Your task to perform on an android device: turn off location Image 0: 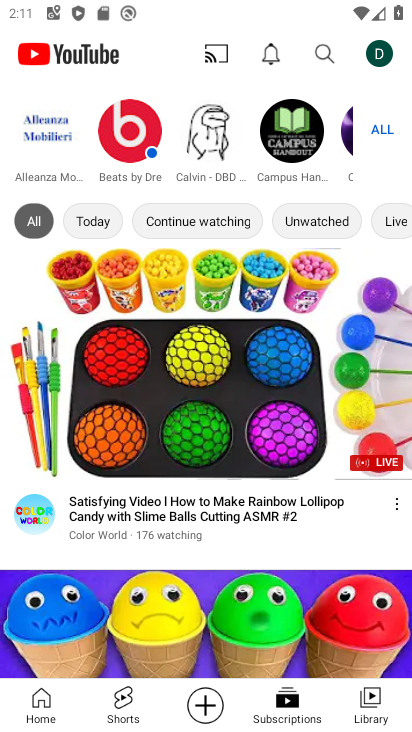
Step 0: press home button
Your task to perform on an android device: turn off location Image 1: 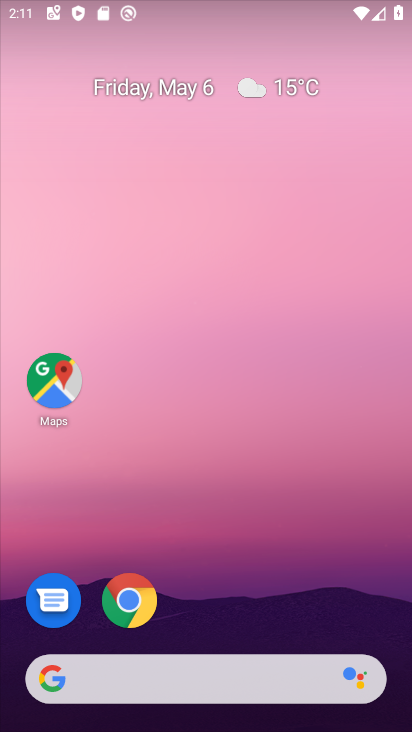
Step 1: drag from (350, 580) to (213, 22)
Your task to perform on an android device: turn off location Image 2: 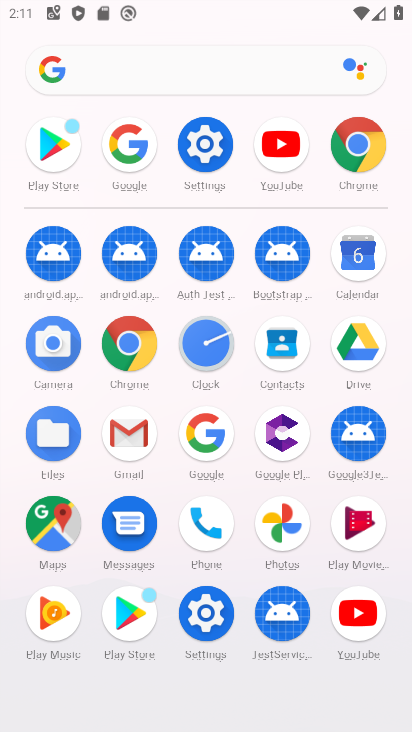
Step 2: click (196, 612)
Your task to perform on an android device: turn off location Image 3: 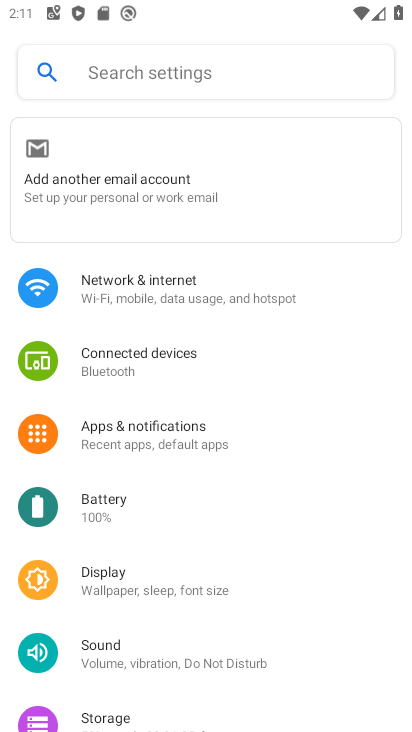
Step 3: drag from (161, 634) to (238, 222)
Your task to perform on an android device: turn off location Image 4: 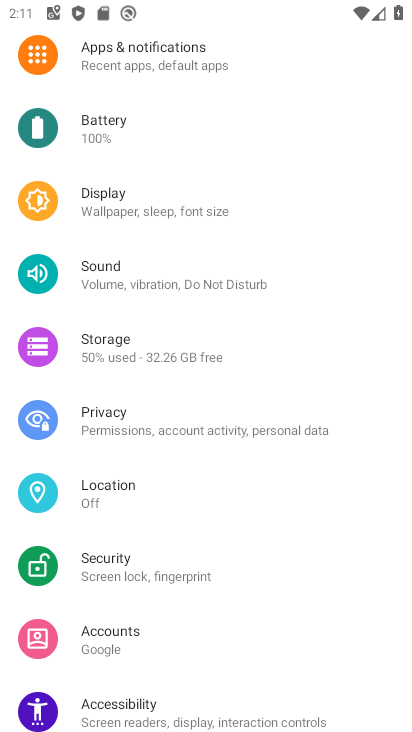
Step 4: click (135, 476)
Your task to perform on an android device: turn off location Image 5: 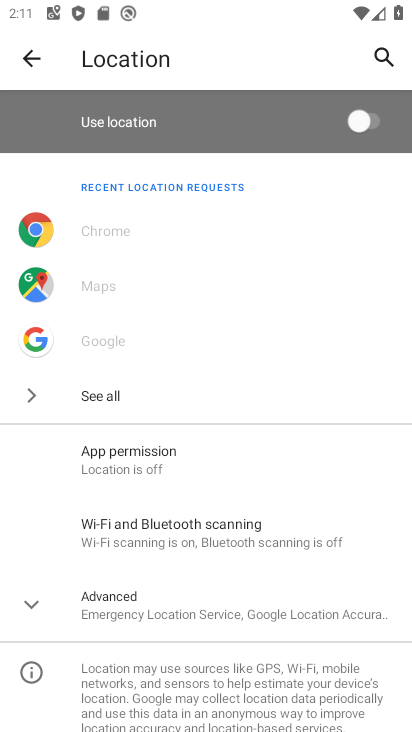
Step 5: task complete